Your task to perform on an android device: Go to Wikipedia Image 0: 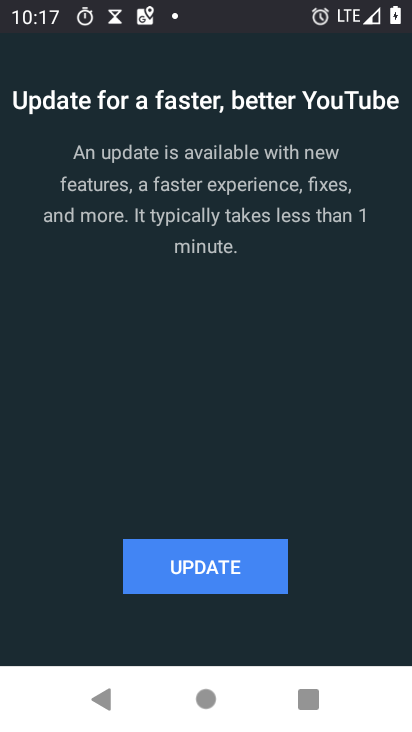
Step 0: press home button
Your task to perform on an android device: Go to Wikipedia Image 1: 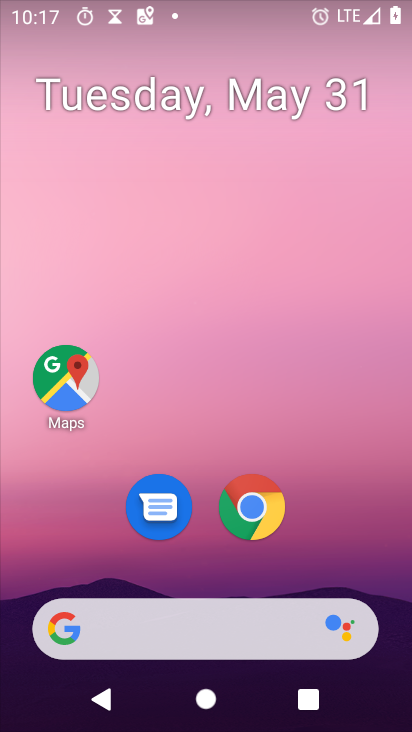
Step 1: click (260, 505)
Your task to perform on an android device: Go to Wikipedia Image 2: 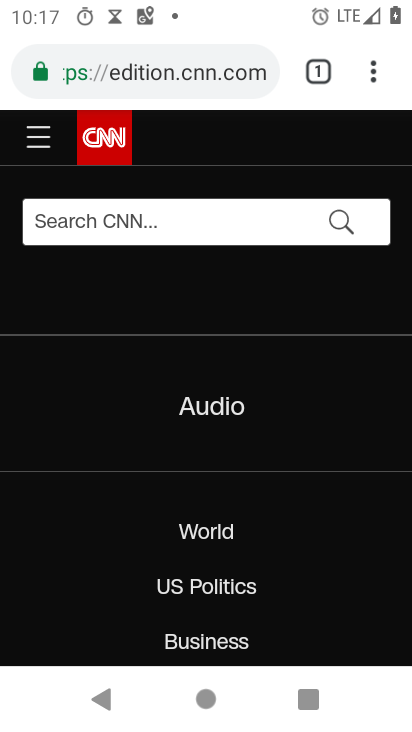
Step 2: click (313, 66)
Your task to perform on an android device: Go to Wikipedia Image 3: 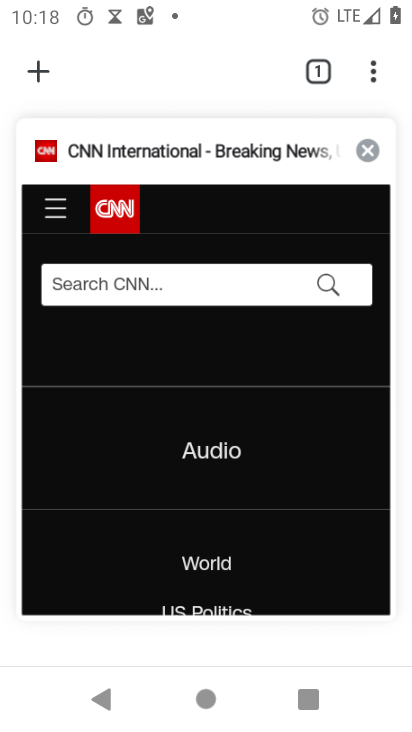
Step 3: click (35, 58)
Your task to perform on an android device: Go to Wikipedia Image 4: 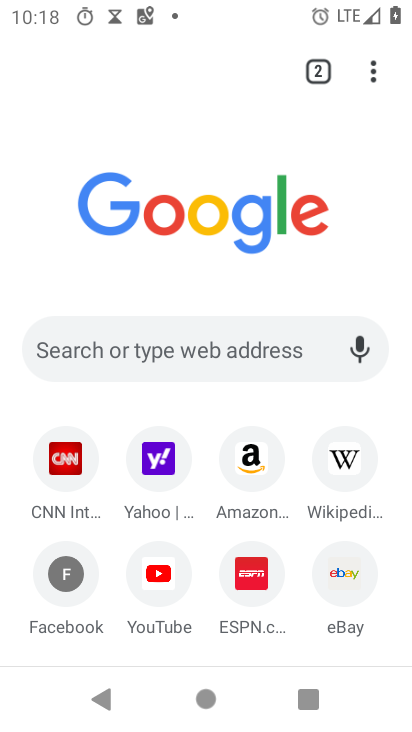
Step 4: click (360, 460)
Your task to perform on an android device: Go to Wikipedia Image 5: 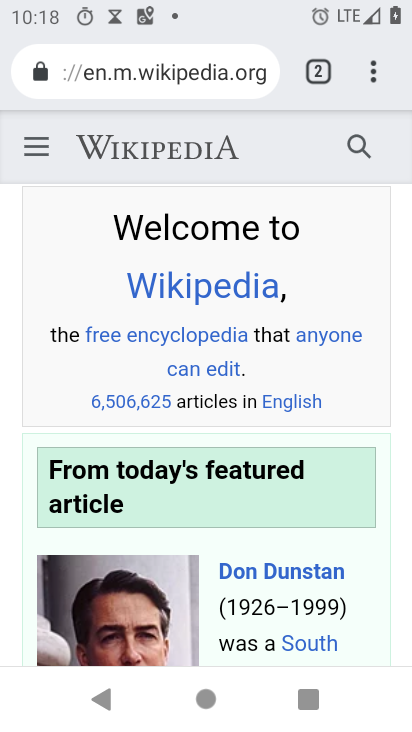
Step 5: task complete